Your task to perform on an android device: Open eBay Image 0: 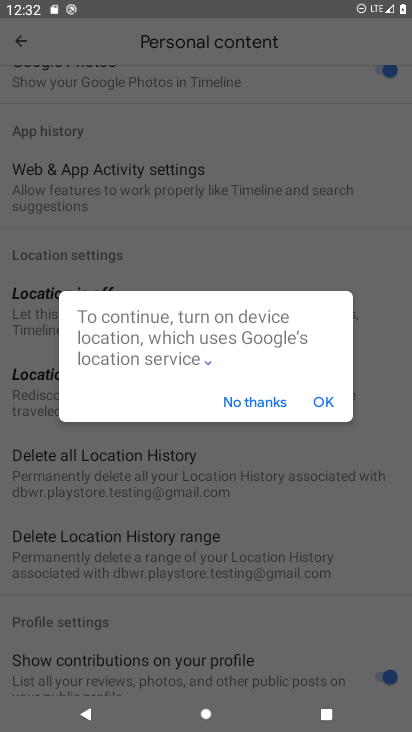
Step 0: press home button
Your task to perform on an android device: Open eBay Image 1: 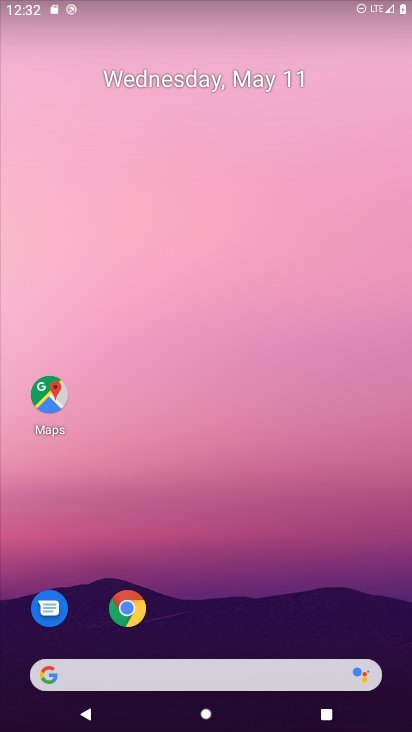
Step 1: click (237, 668)
Your task to perform on an android device: Open eBay Image 2: 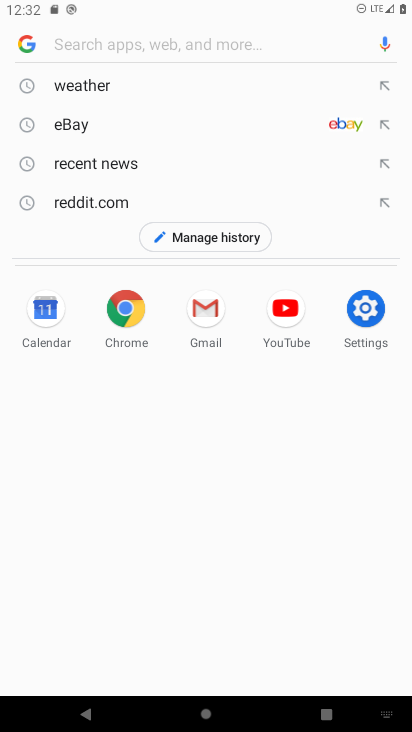
Step 2: click (82, 113)
Your task to perform on an android device: Open eBay Image 3: 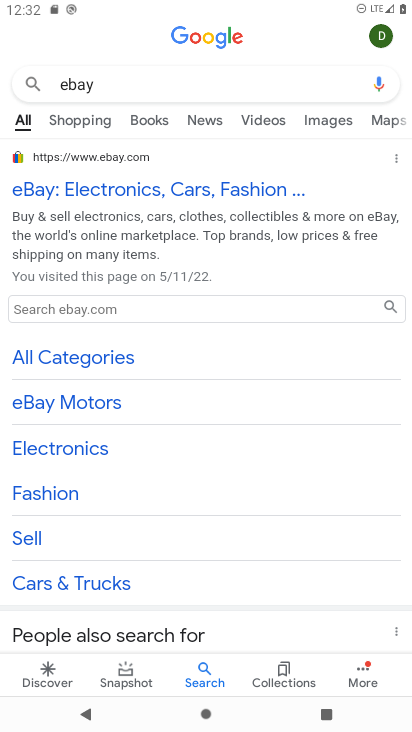
Step 3: click (231, 185)
Your task to perform on an android device: Open eBay Image 4: 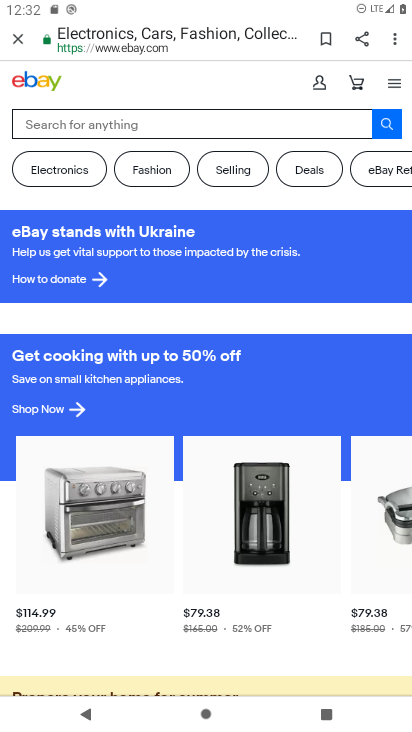
Step 4: task complete